Your task to perform on an android device: turn on wifi Image 0: 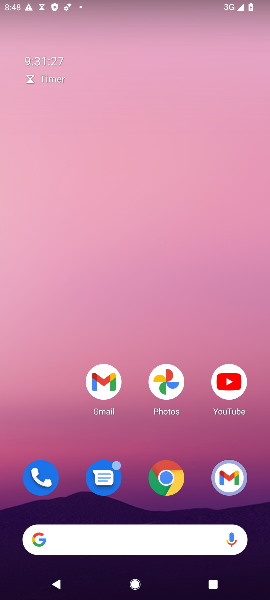
Step 0: drag from (186, 343) to (165, 42)
Your task to perform on an android device: turn on wifi Image 1: 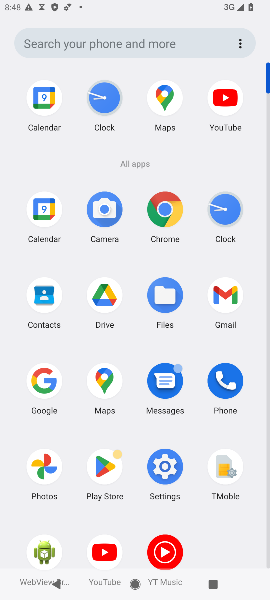
Step 1: click (168, 450)
Your task to perform on an android device: turn on wifi Image 2: 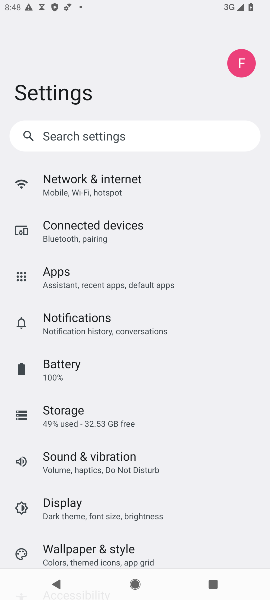
Step 2: click (122, 189)
Your task to perform on an android device: turn on wifi Image 3: 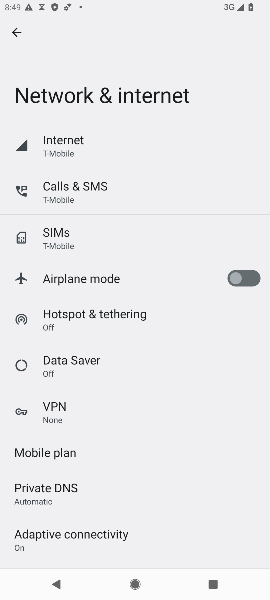
Step 3: click (137, 150)
Your task to perform on an android device: turn on wifi Image 4: 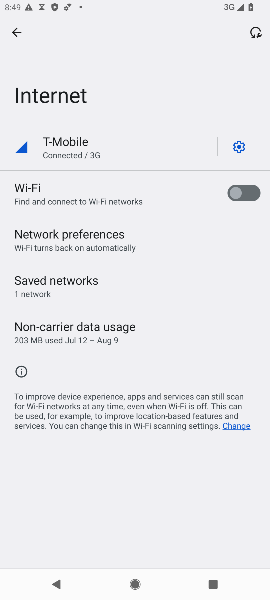
Step 4: click (250, 199)
Your task to perform on an android device: turn on wifi Image 5: 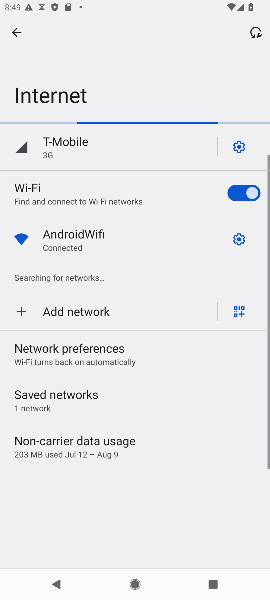
Step 5: task complete